Your task to perform on an android device: toggle wifi Image 0: 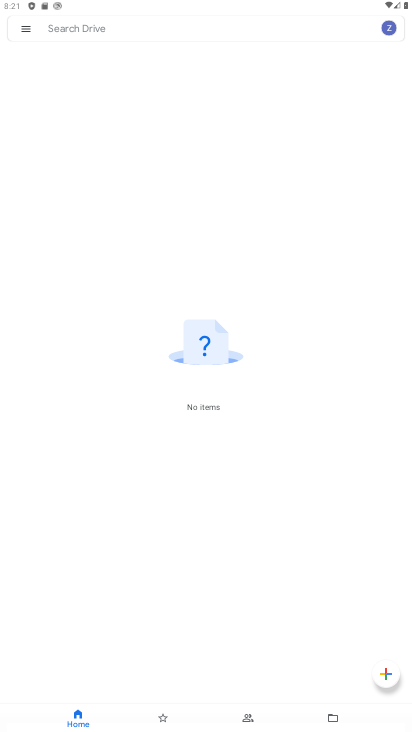
Step 0: press home button
Your task to perform on an android device: toggle wifi Image 1: 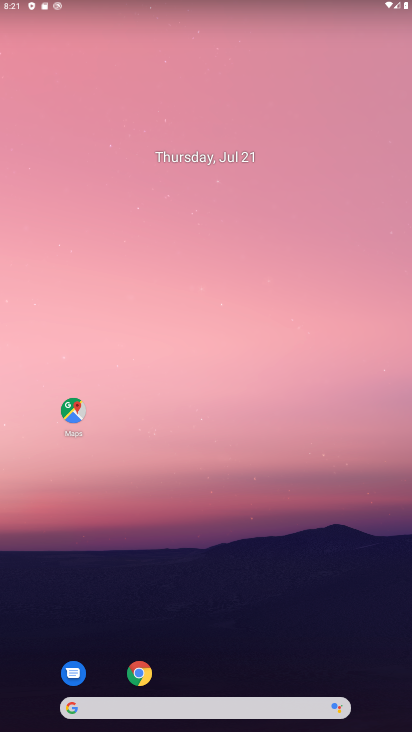
Step 1: drag from (217, 660) to (247, 137)
Your task to perform on an android device: toggle wifi Image 2: 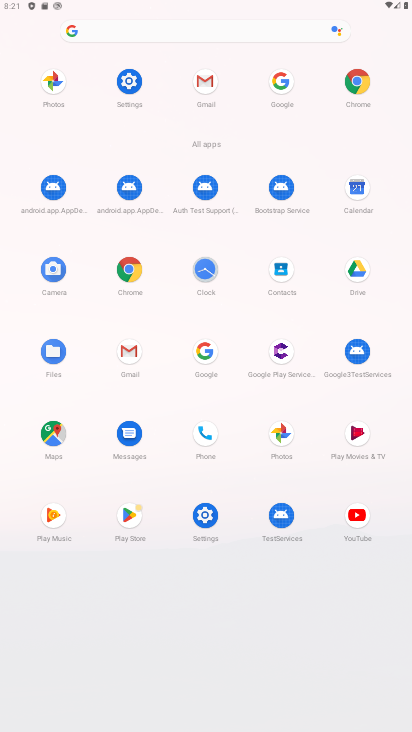
Step 2: click (142, 100)
Your task to perform on an android device: toggle wifi Image 3: 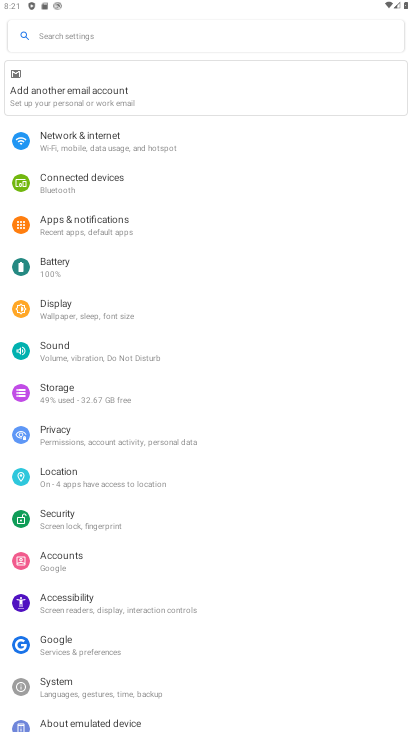
Step 3: click (120, 134)
Your task to perform on an android device: toggle wifi Image 4: 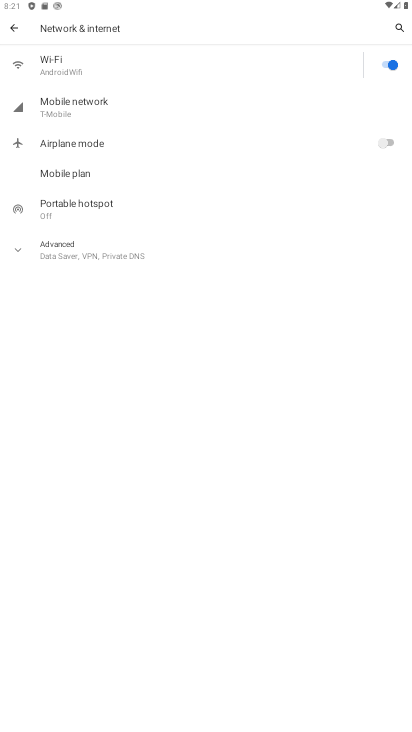
Step 4: click (377, 67)
Your task to perform on an android device: toggle wifi Image 5: 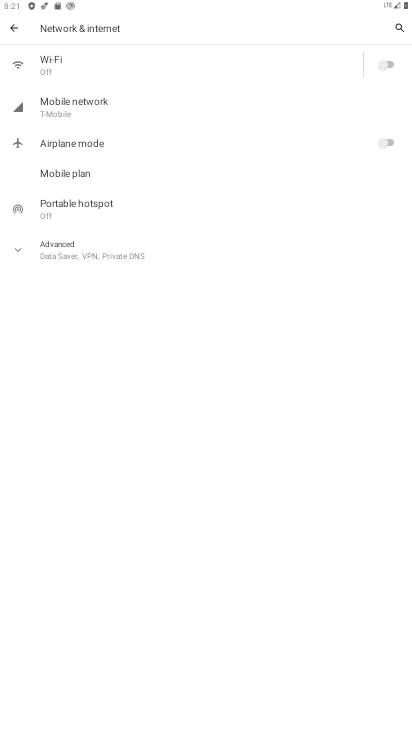
Step 5: task complete